Your task to perform on an android device: manage bookmarks in the chrome app Image 0: 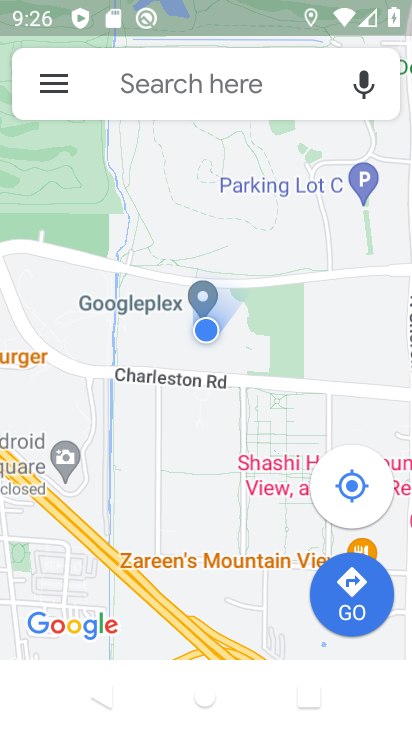
Step 0: press home button
Your task to perform on an android device: manage bookmarks in the chrome app Image 1: 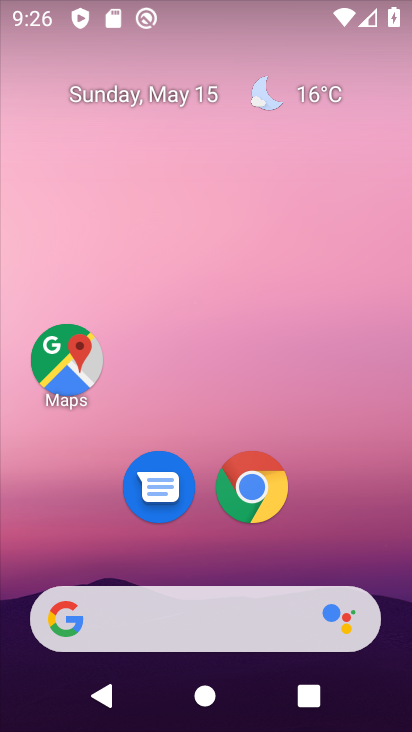
Step 1: drag from (335, 499) to (367, 87)
Your task to perform on an android device: manage bookmarks in the chrome app Image 2: 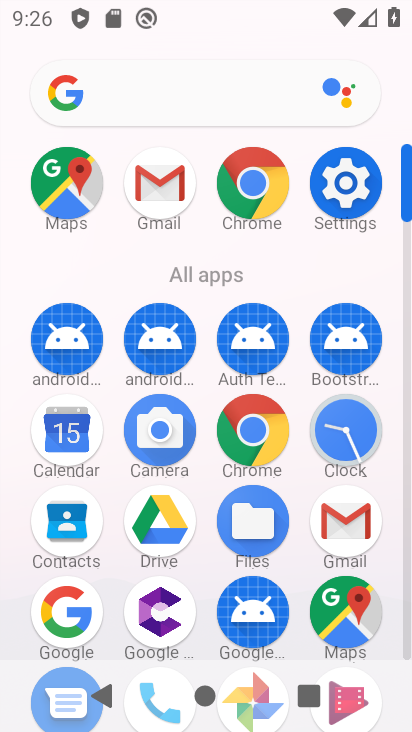
Step 2: drag from (293, 572) to (292, 211)
Your task to perform on an android device: manage bookmarks in the chrome app Image 3: 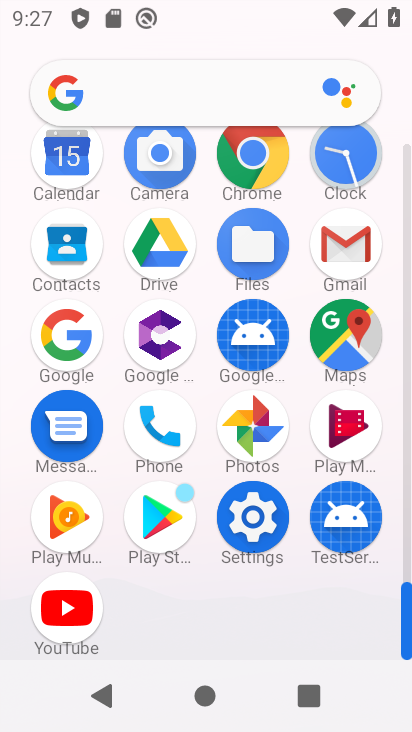
Step 3: drag from (298, 264) to (287, 503)
Your task to perform on an android device: manage bookmarks in the chrome app Image 4: 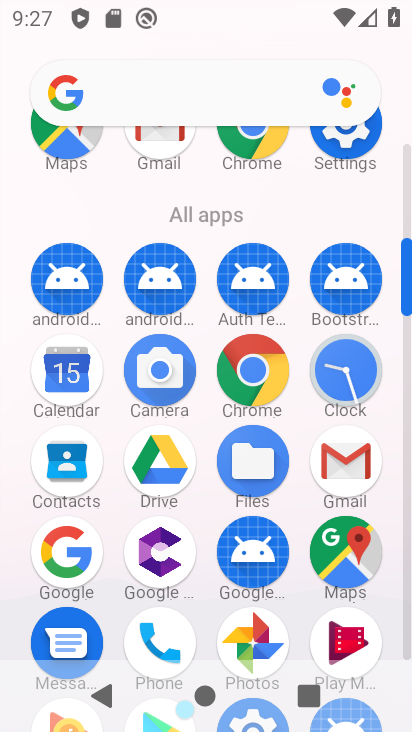
Step 4: click (255, 376)
Your task to perform on an android device: manage bookmarks in the chrome app Image 5: 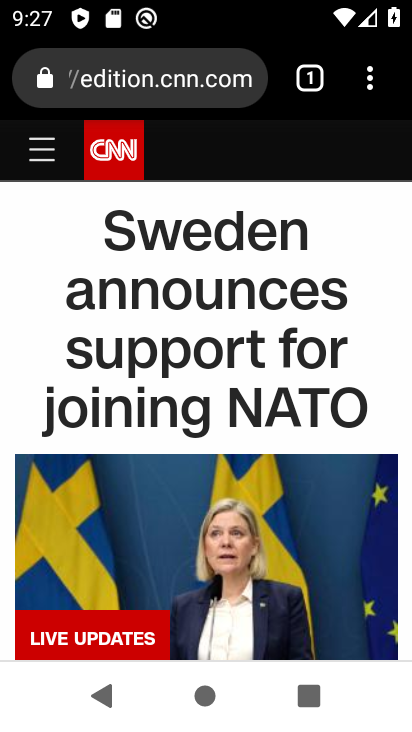
Step 5: drag from (340, 611) to (323, 324)
Your task to perform on an android device: manage bookmarks in the chrome app Image 6: 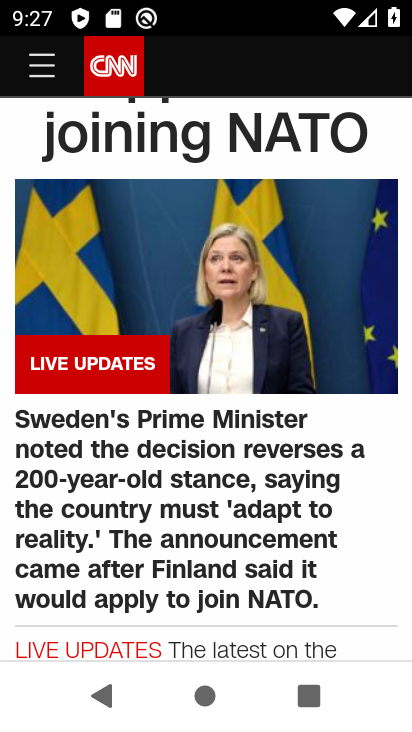
Step 6: drag from (368, 277) to (362, 541)
Your task to perform on an android device: manage bookmarks in the chrome app Image 7: 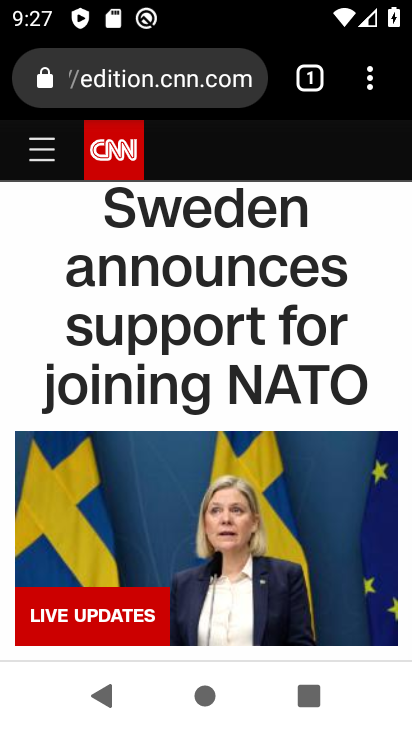
Step 7: drag from (377, 93) to (267, 302)
Your task to perform on an android device: manage bookmarks in the chrome app Image 8: 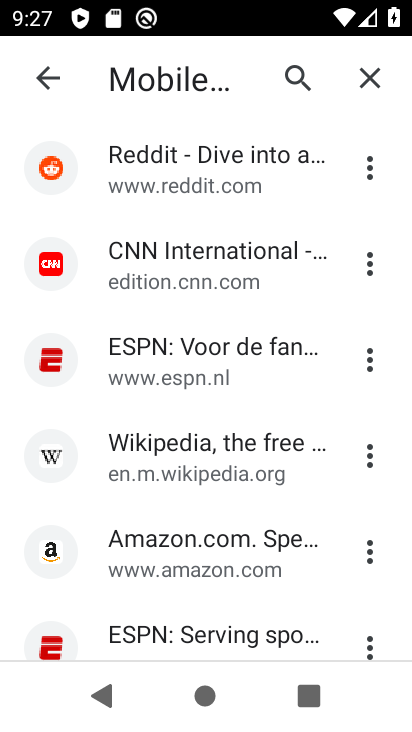
Step 8: drag from (288, 584) to (297, 321)
Your task to perform on an android device: manage bookmarks in the chrome app Image 9: 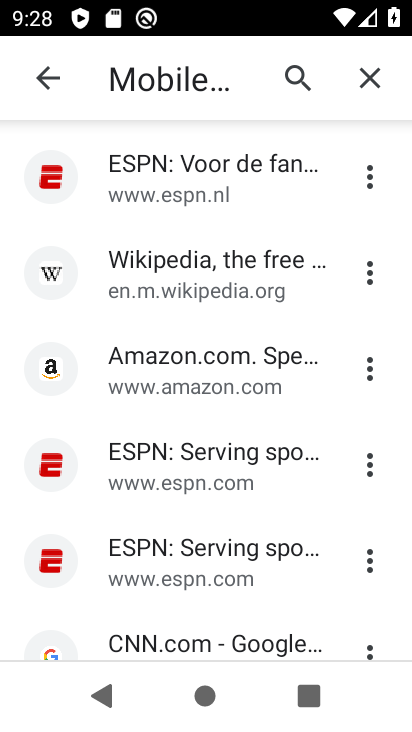
Step 9: click (368, 183)
Your task to perform on an android device: manage bookmarks in the chrome app Image 10: 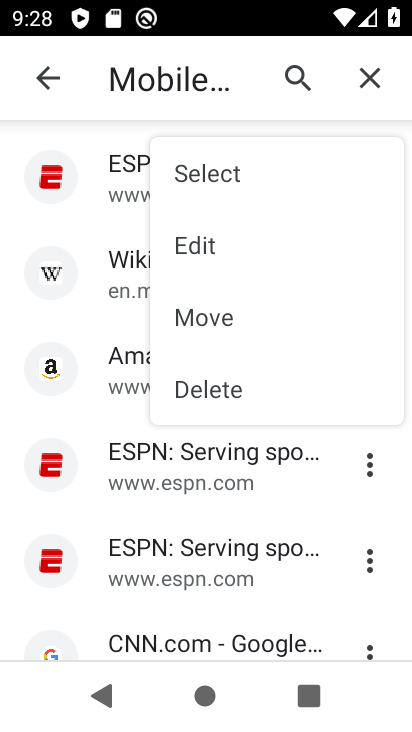
Step 10: click (222, 392)
Your task to perform on an android device: manage bookmarks in the chrome app Image 11: 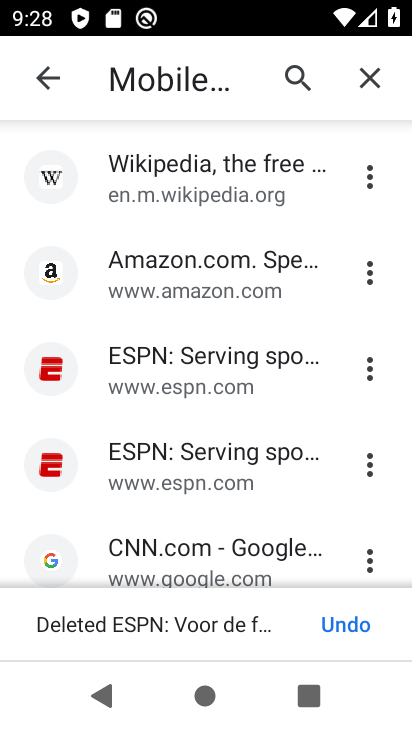
Step 11: task complete